Your task to perform on an android device: stop showing notifications on the lock screen Image 0: 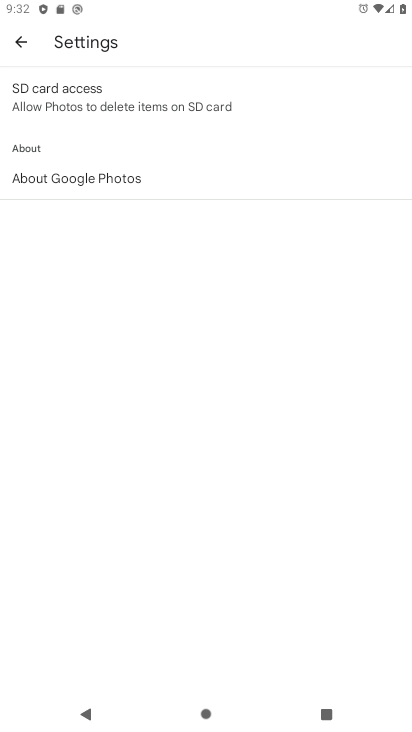
Step 0: press back button
Your task to perform on an android device: stop showing notifications on the lock screen Image 1: 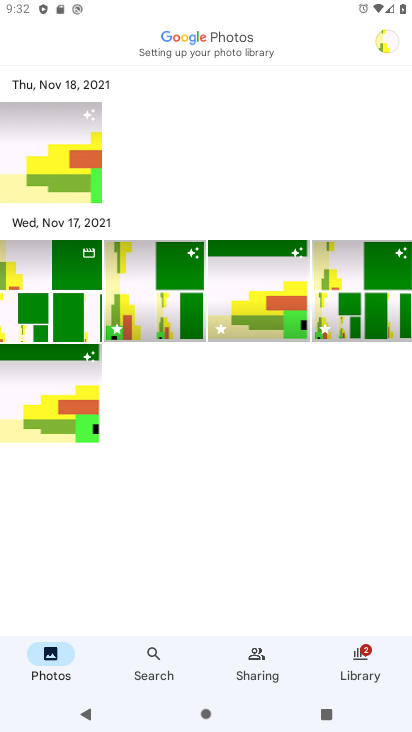
Step 1: press back button
Your task to perform on an android device: stop showing notifications on the lock screen Image 2: 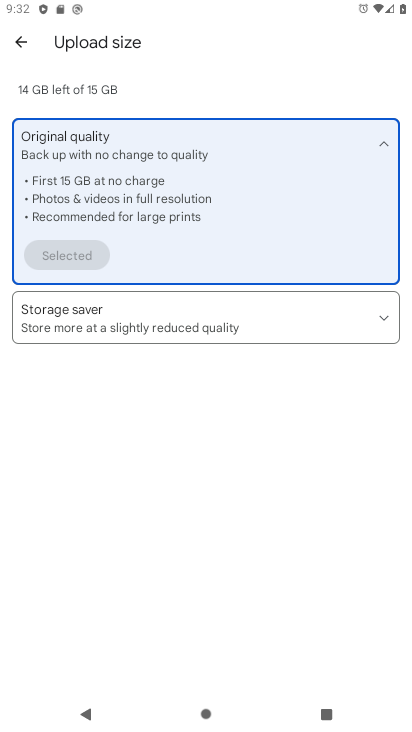
Step 2: press home button
Your task to perform on an android device: stop showing notifications on the lock screen Image 3: 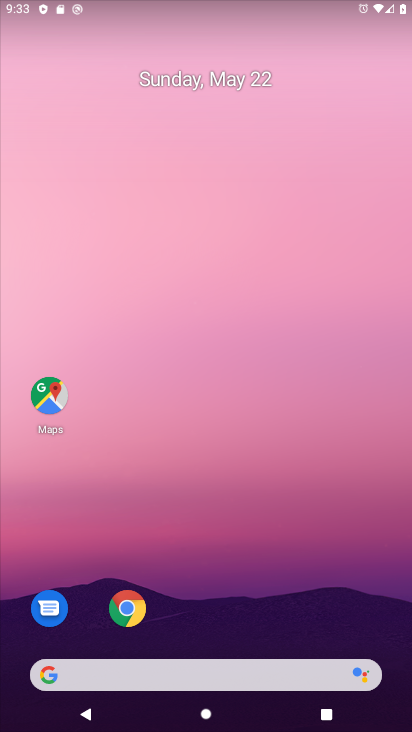
Step 3: drag from (217, 604) to (194, 27)
Your task to perform on an android device: stop showing notifications on the lock screen Image 4: 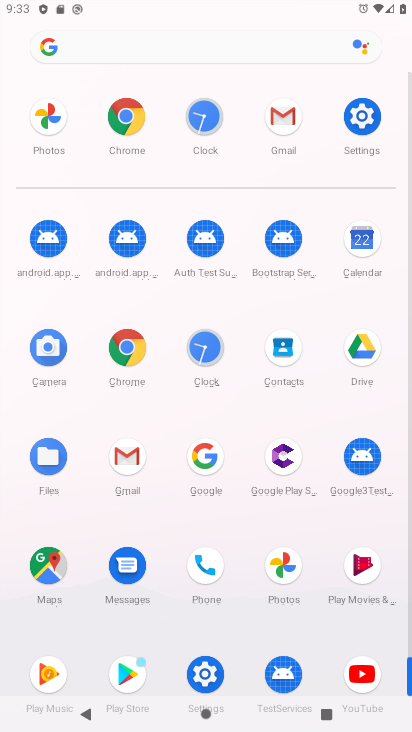
Step 4: click (204, 672)
Your task to perform on an android device: stop showing notifications on the lock screen Image 5: 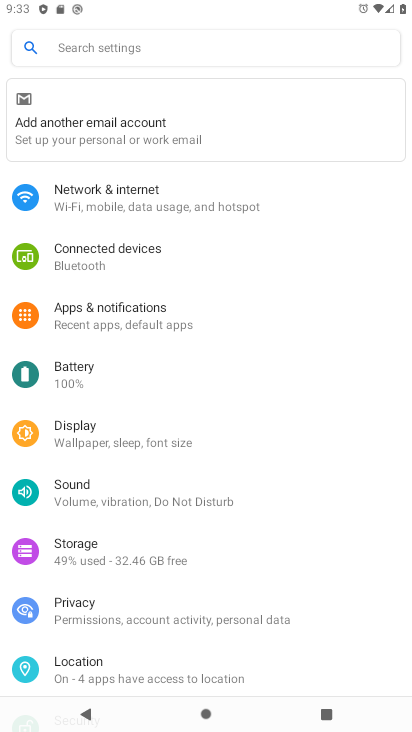
Step 5: drag from (236, 561) to (243, 126)
Your task to perform on an android device: stop showing notifications on the lock screen Image 6: 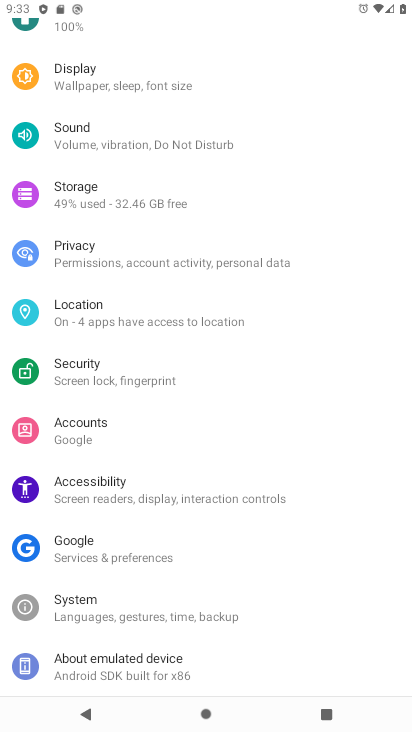
Step 6: drag from (243, 126) to (250, 538)
Your task to perform on an android device: stop showing notifications on the lock screen Image 7: 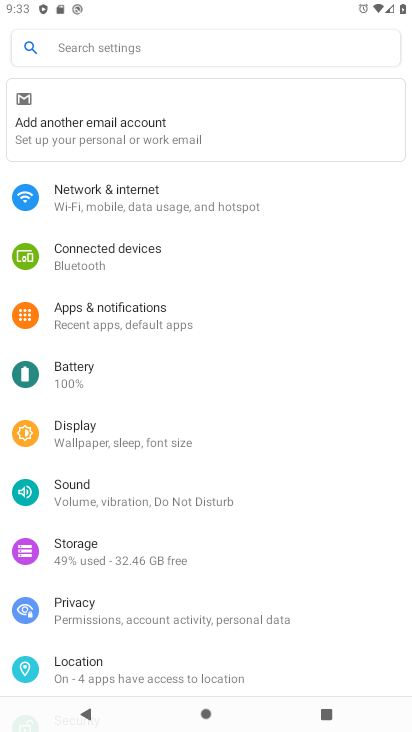
Step 7: click (180, 194)
Your task to perform on an android device: stop showing notifications on the lock screen Image 8: 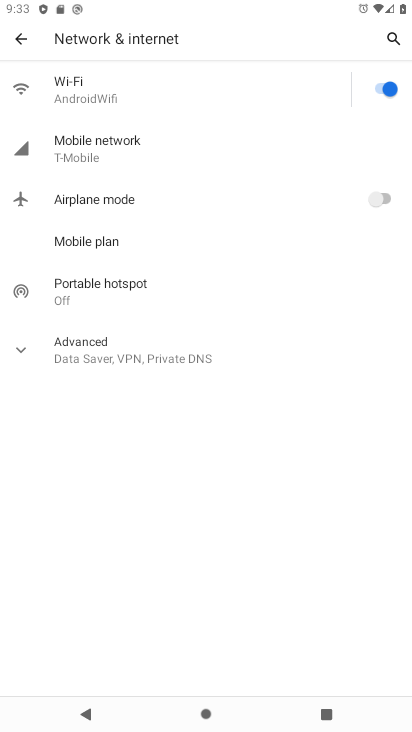
Step 8: click (42, 351)
Your task to perform on an android device: stop showing notifications on the lock screen Image 9: 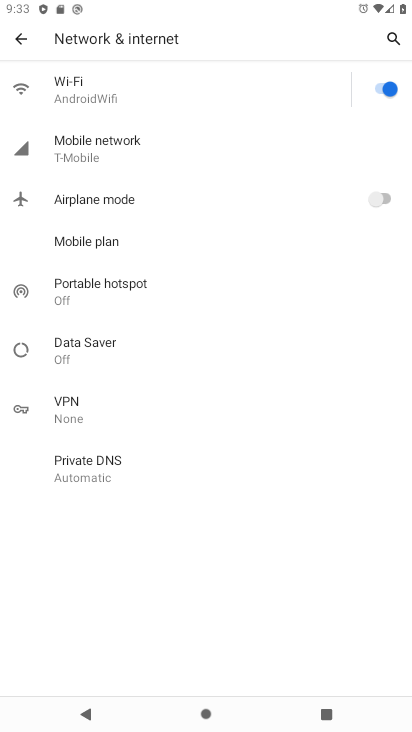
Step 9: click (21, 42)
Your task to perform on an android device: stop showing notifications on the lock screen Image 10: 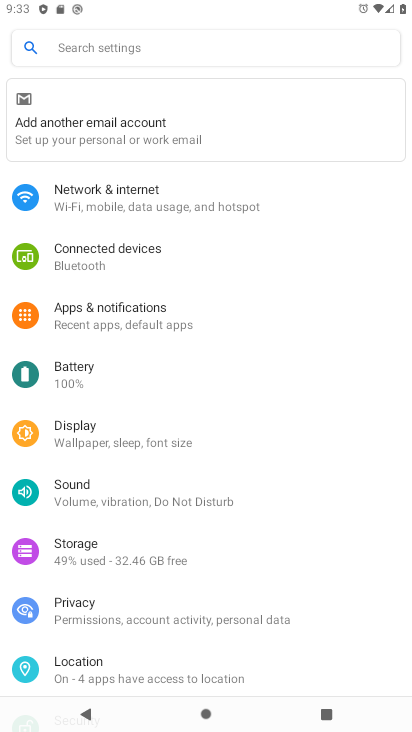
Step 10: click (123, 317)
Your task to perform on an android device: stop showing notifications on the lock screen Image 11: 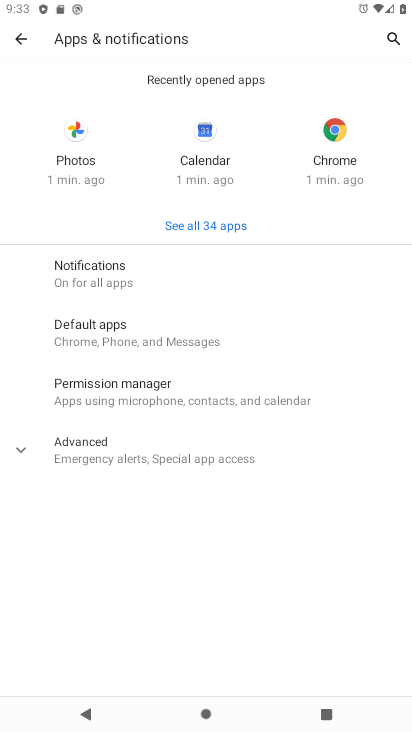
Step 11: click (25, 447)
Your task to perform on an android device: stop showing notifications on the lock screen Image 12: 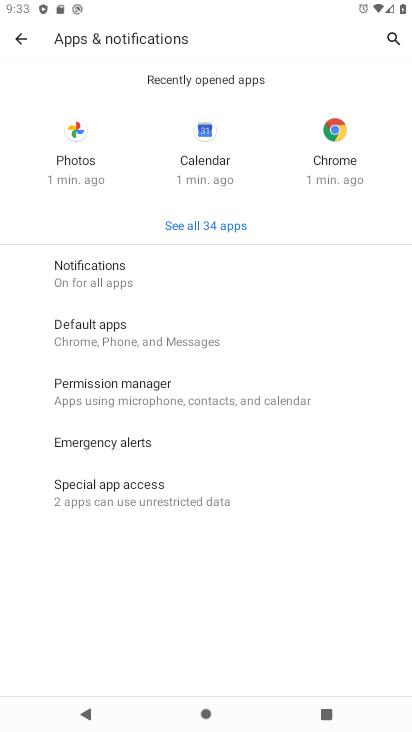
Step 12: click (78, 280)
Your task to perform on an android device: stop showing notifications on the lock screen Image 13: 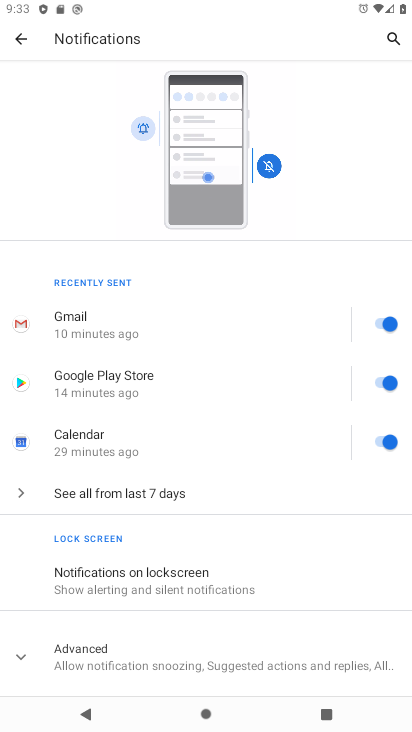
Step 13: drag from (217, 538) to (259, 190)
Your task to perform on an android device: stop showing notifications on the lock screen Image 14: 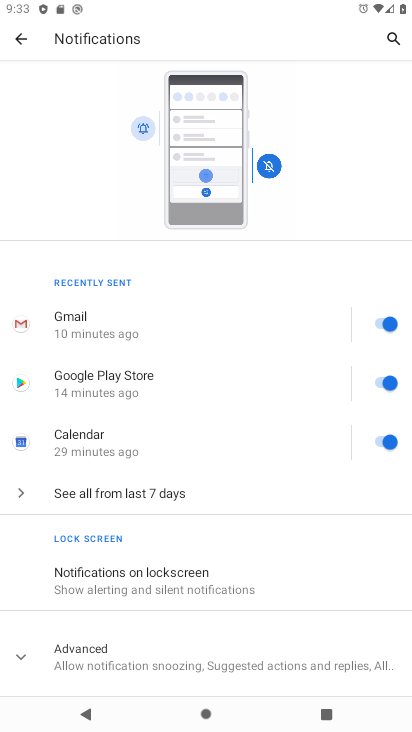
Step 14: click (30, 650)
Your task to perform on an android device: stop showing notifications on the lock screen Image 15: 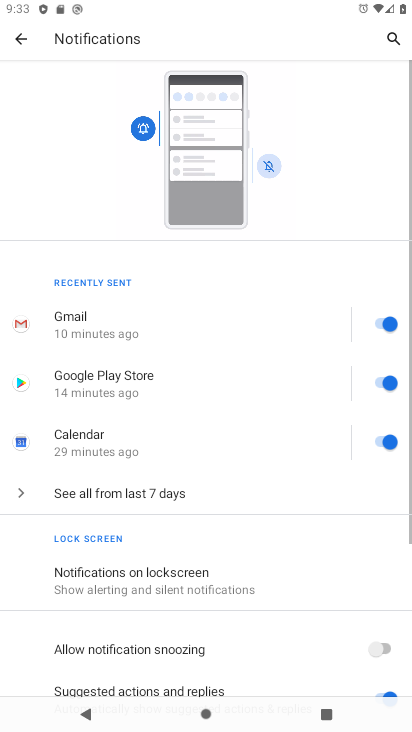
Step 15: drag from (240, 611) to (231, 206)
Your task to perform on an android device: stop showing notifications on the lock screen Image 16: 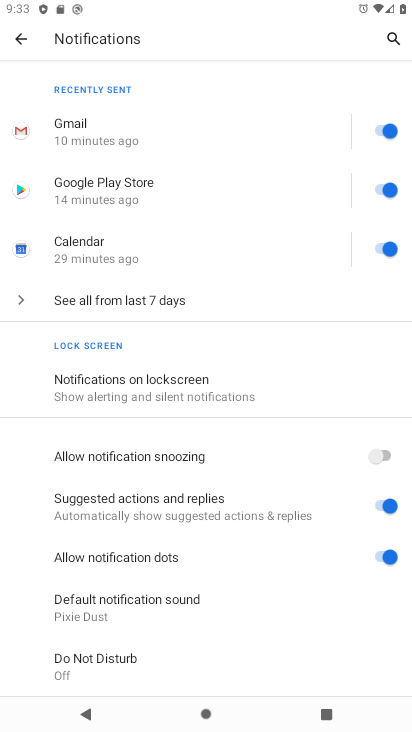
Step 16: click (154, 408)
Your task to perform on an android device: stop showing notifications on the lock screen Image 17: 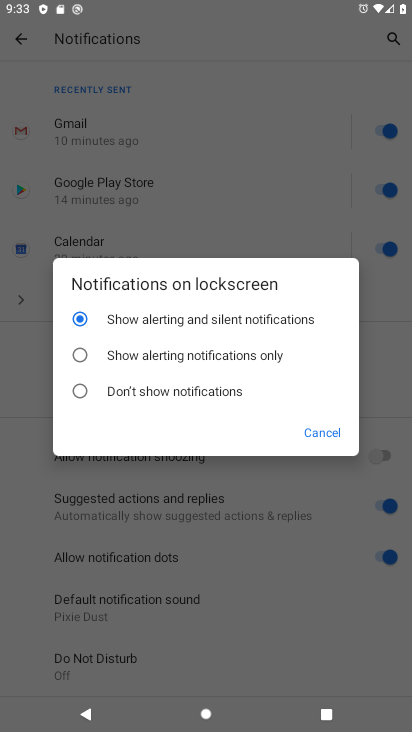
Step 17: click (149, 390)
Your task to perform on an android device: stop showing notifications on the lock screen Image 18: 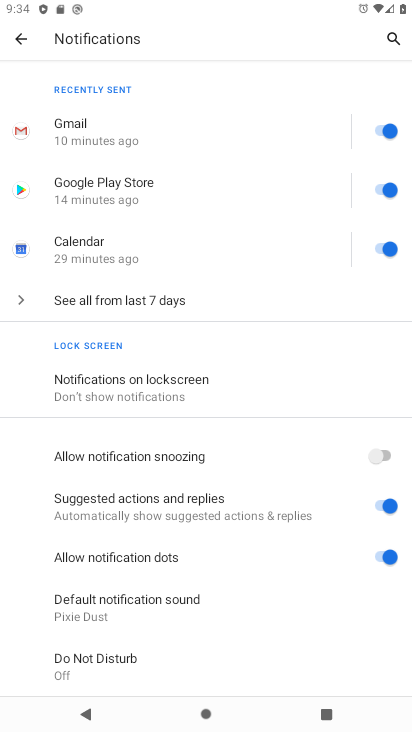
Step 18: task complete